Your task to perform on an android device: turn on priority inbox in the gmail app Image 0: 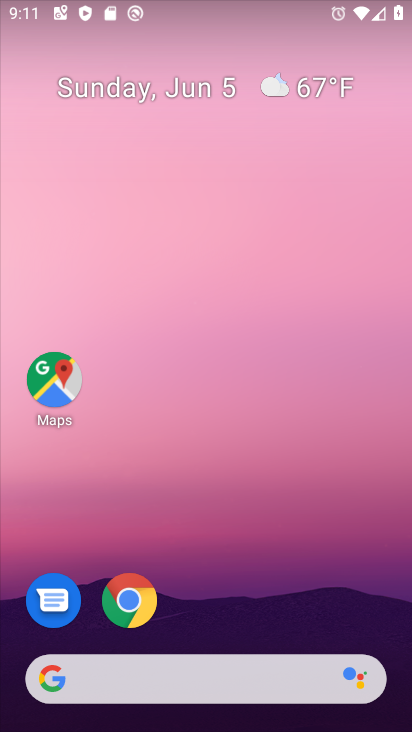
Step 0: drag from (400, 633) to (373, 419)
Your task to perform on an android device: turn on priority inbox in the gmail app Image 1: 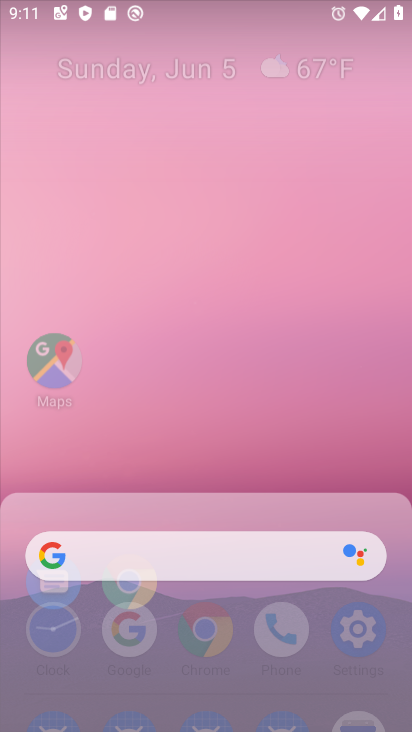
Step 1: drag from (309, 109) to (270, 22)
Your task to perform on an android device: turn on priority inbox in the gmail app Image 2: 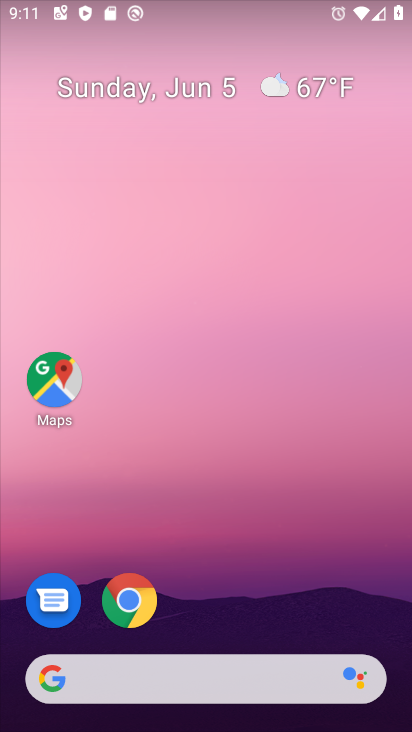
Step 2: click (407, 656)
Your task to perform on an android device: turn on priority inbox in the gmail app Image 3: 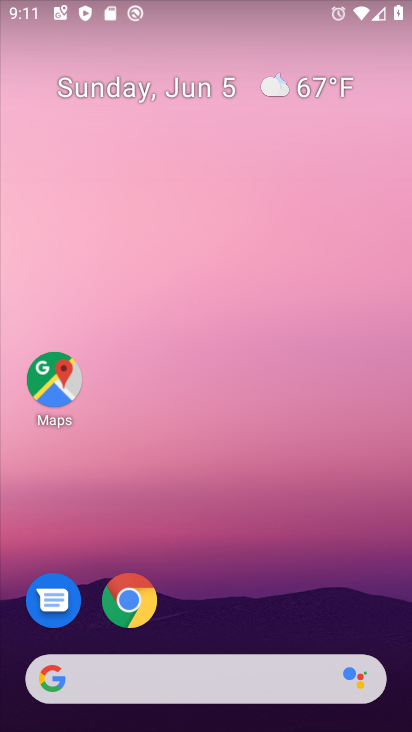
Step 3: drag from (387, 497) to (291, 4)
Your task to perform on an android device: turn on priority inbox in the gmail app Image 4: 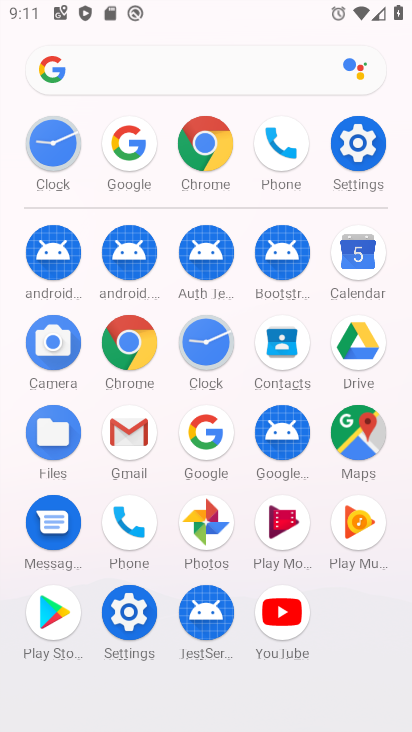
Step 4: click (126, 444)
Your task to perform on an android device: turn on priority inbox in the gmail app Image 5: 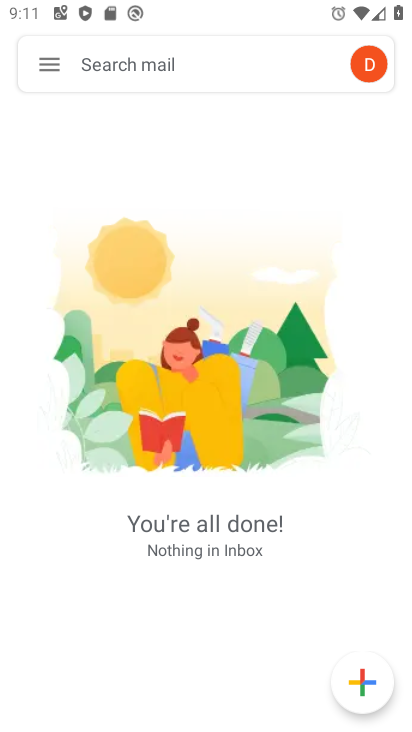
Step 5: click (49, 74)
Your task to perform on an android device: turn on priority inbox in the gmail app Image 6: 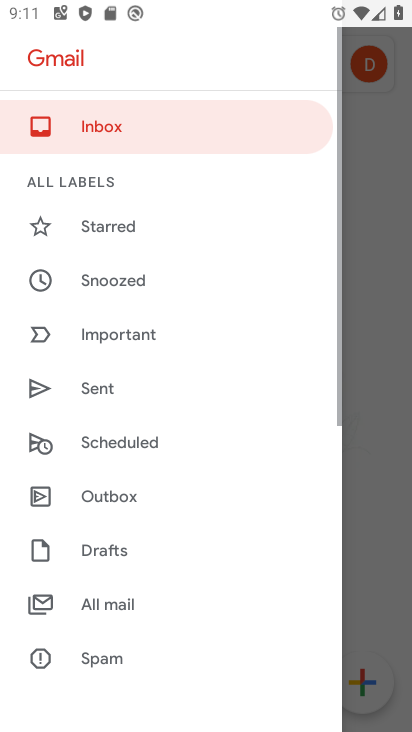
Step 6: drag from (125, 658) to (200, 115)
Your task to perform on an android device: turn on priority inbox in the gmail app Image 7: 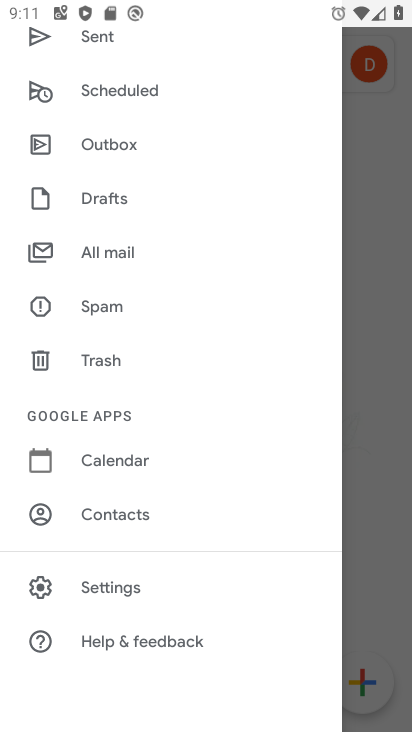
Step 7: click (105, 599)
Your task to perform on an android device: turn on priority inbox in the gmail app Image 8: 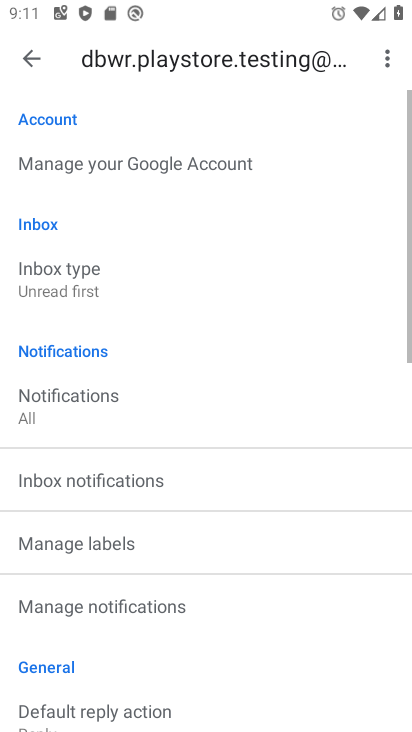
Step 8: click (114, 282)
Your task to perform on an android device: turn on priority inbox in the gmail app Image 9: 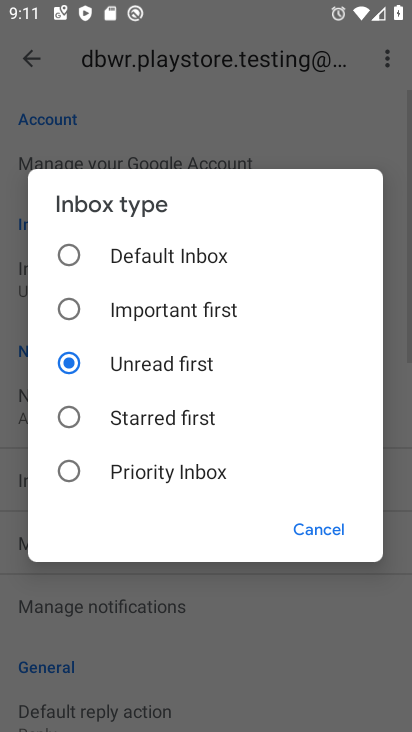
Step 9: click (66, 473)
Your task to perform on an android device: turn on priority inbox in the gmail app Image 10: 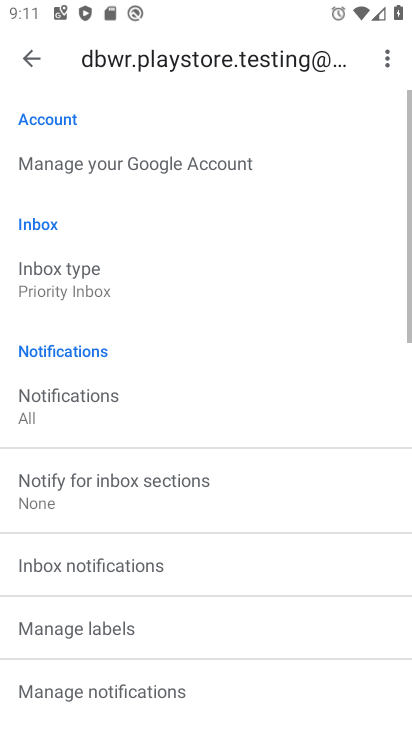
Step 10: task complete